Your task to perform on an android device: toggle priority inbox in the gmail app Image 0: 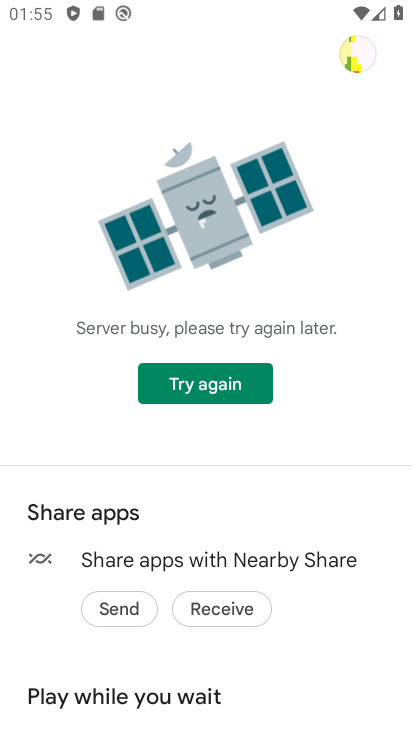
Step 0: press home button
Your task to perform on an android device: toggle priority inbox in the gmail app Image 1: 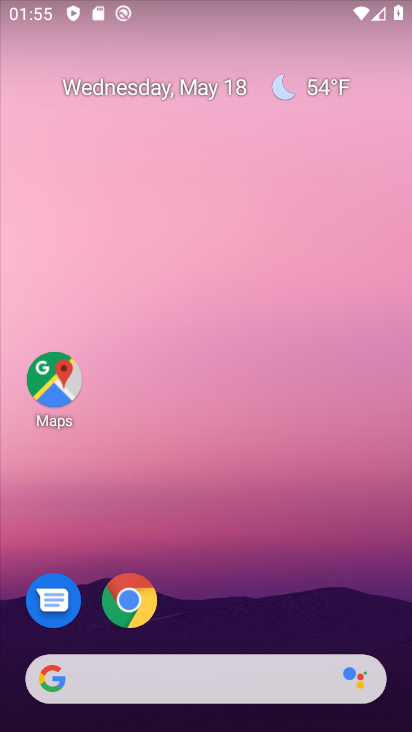
Step 1: drag from (213, 654) to (247, 405)
Your task to perform on an android device: toggle priority inbox in the gmail app Image 2: 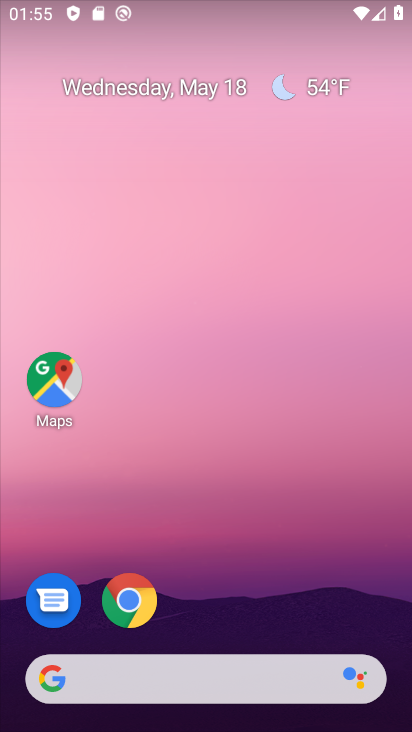
Step 2: drag from (216, 652) to (263, 296)
Your task to perform on an android device: toggle priority inbox in the gmail app Image 3: 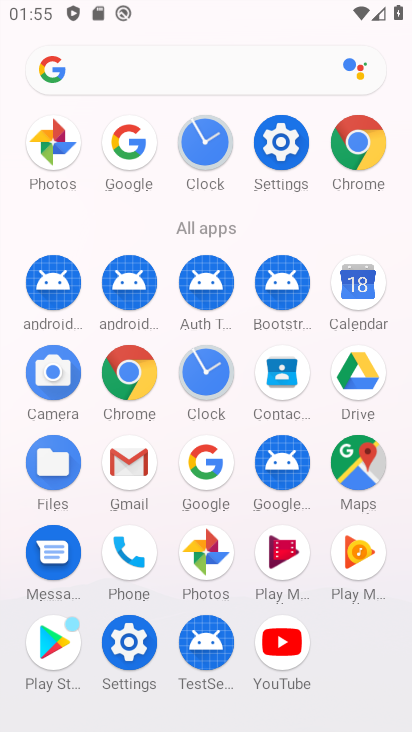
Step 3: click (128, 470)
Your task to perform on an android device: toggle priority inbox in the gmail app Image 4: 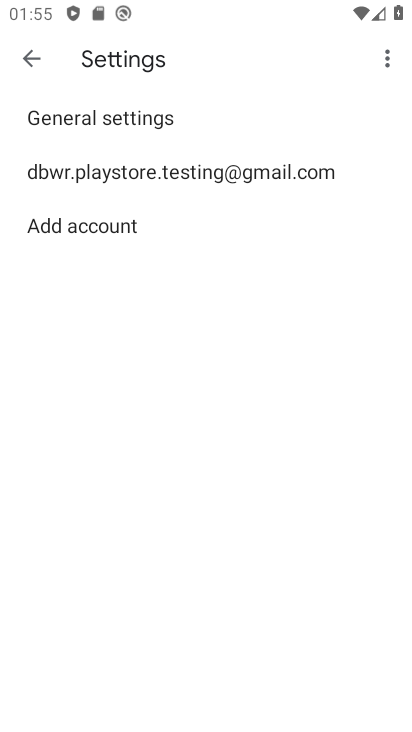
Step 4: click (61, 174)
Your task to perform on an android device: toggle priority inbox in the gmail app Image 5: 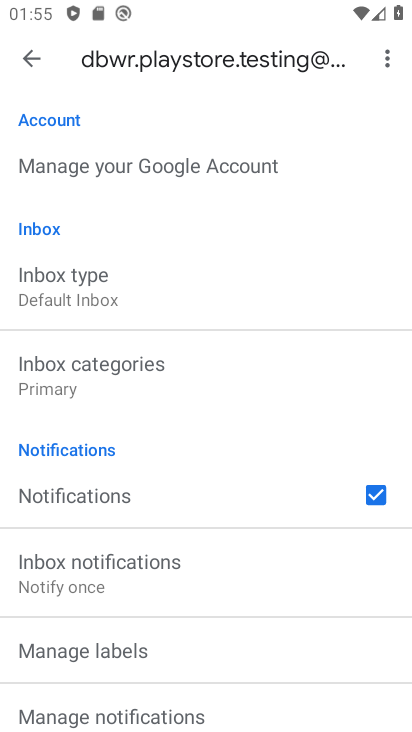
Step 5: drag from (124, 702) to (206, 380)
Your task to perform on an android device: toggle priority inbox in the gmail app Image 6: 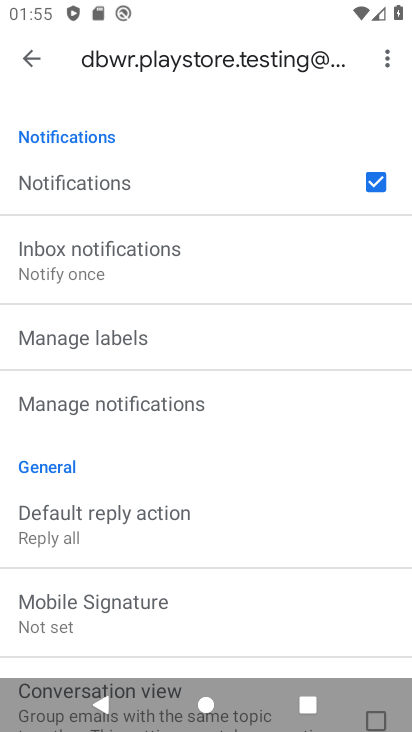
Step 6: drag from (150, 656) to (195, 370)
Your task to perform on an android device: toggle priority inbox in the gmail app Image 7: 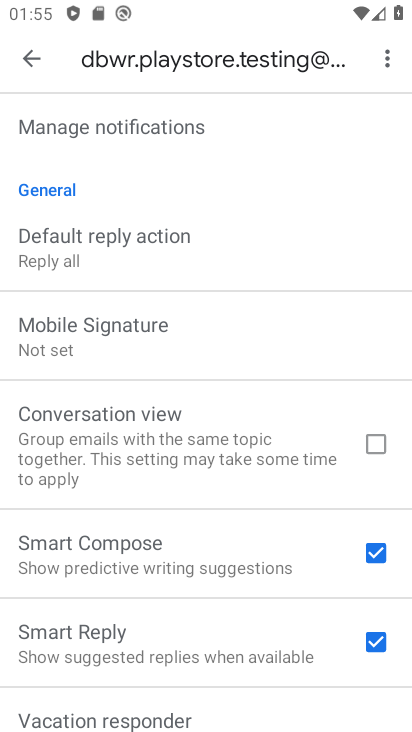
Step 7: drag from (193, 660) to (226, 383)
Your task to perform on an android device: toggle priority inbox in the gmail app Image 8: 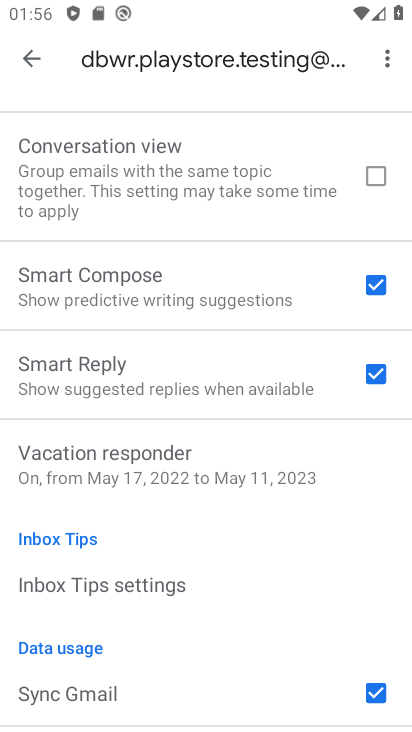
Step 8: drag from (175, 667) to (188, 396)
Your task to perform on an android device: toggle priority inbox in the gmail app Image 9: 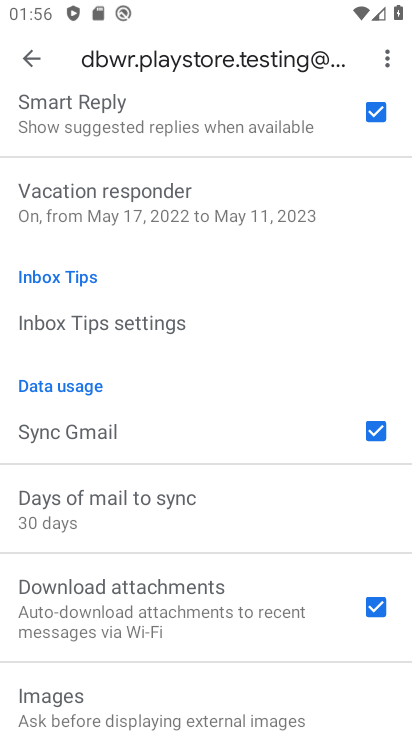
Step 9: drag from (179, 686) to (213, 417)
Your task to perform on an android device: toggle priority inbox in the gmail app Image 10: 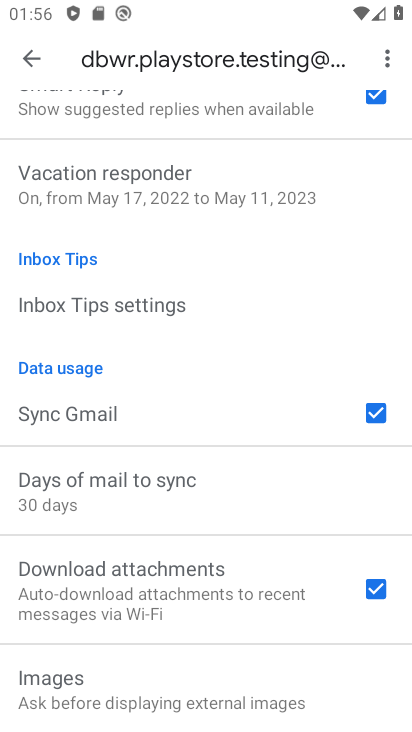
Step 10: drag from (215, 176) to (188, 579)
Your task to perform on an android device: toggle priority inbox in the gmail app Image 11: 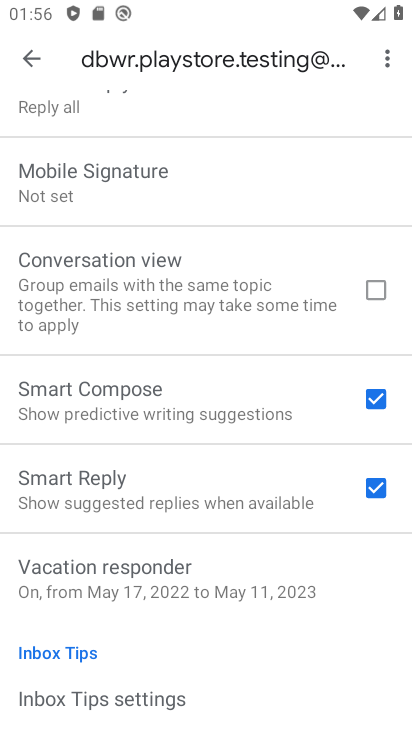
Step 11: drag from (217, 183) to (192, 548)
Your task to perform on an android device: toggle priority inbox in the gmail app Image 12: 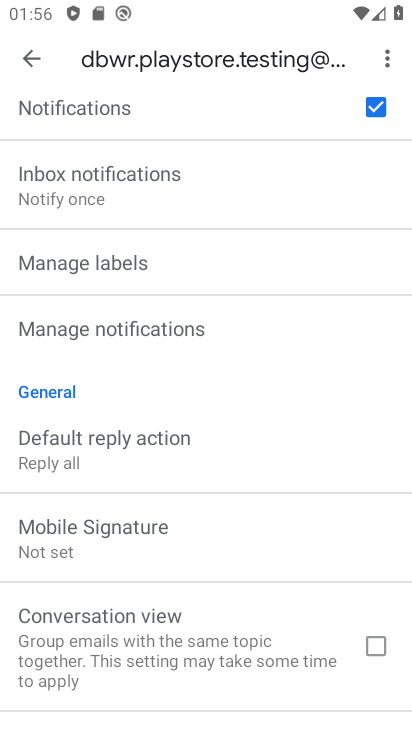
Step 12: drag from (159, 174) to (167, 597)
Your task to perform on an android device: toggle priority inbox in the gmail app Image 13: 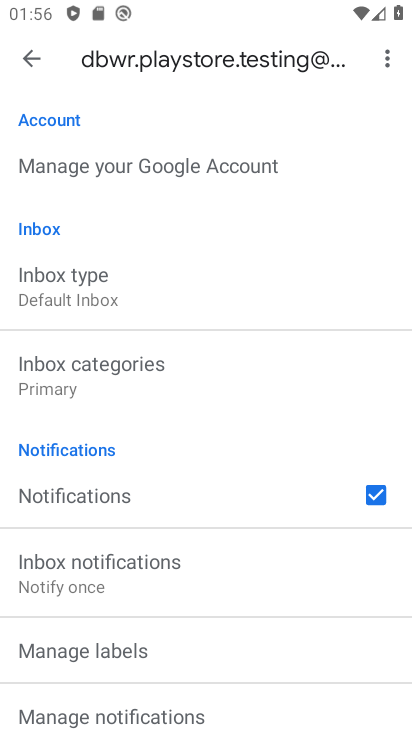
Step 13: drag from (153, 184) to (202, 556)
Your task to perform on an android device: toggle priority inbox in the gmail app Image 14: 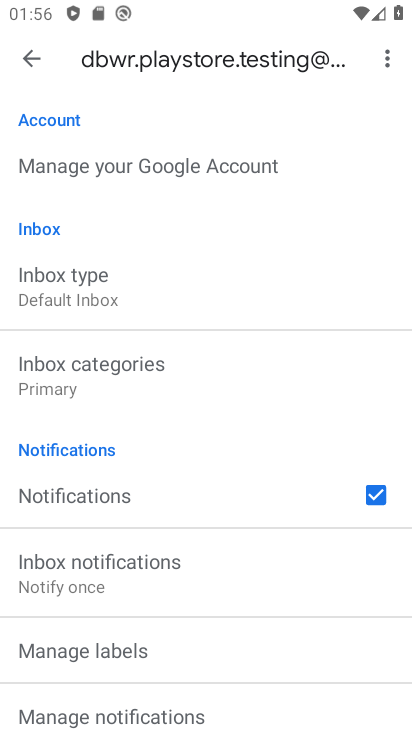
Step 14: click (72, 290)
Your task to perform on an android device: toggle priority inbox in the gmail app Image 15: 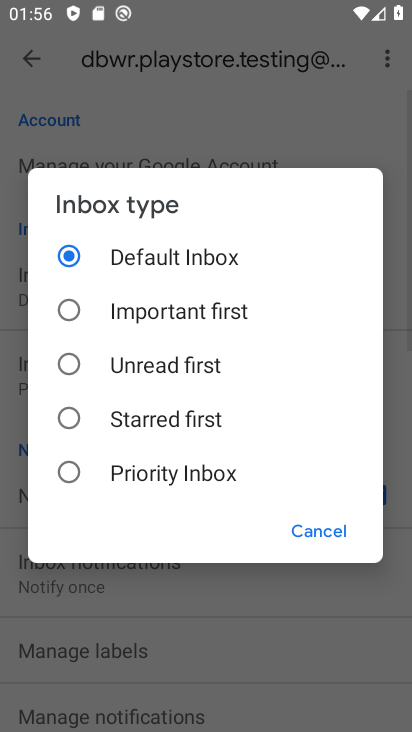
Step 15: click (67, 480)
Your task to perform on an android device: toggle priority inbox in the gmail app Image 16: 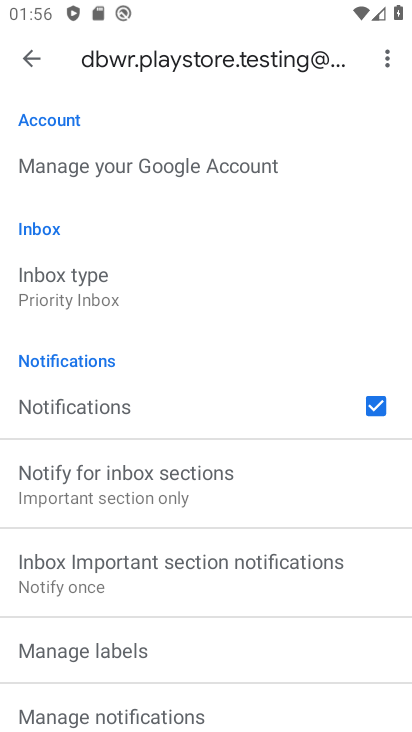
Step 16: task complete